Your task to perform on an android device: Open the map Image 0: 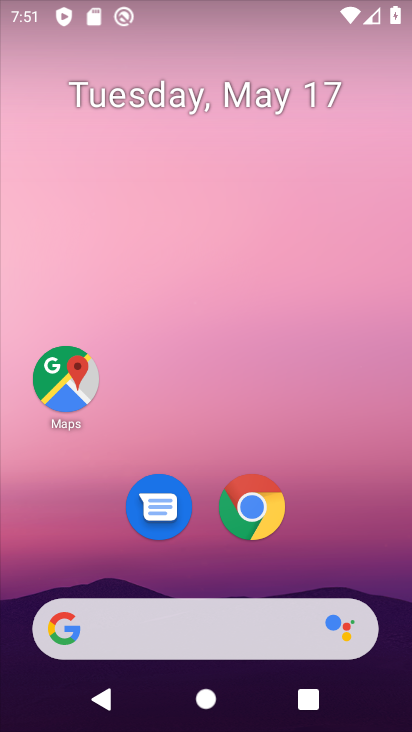
Step 0: click (72, 386)
Your task to perform on an android device: Open the map Image 1: 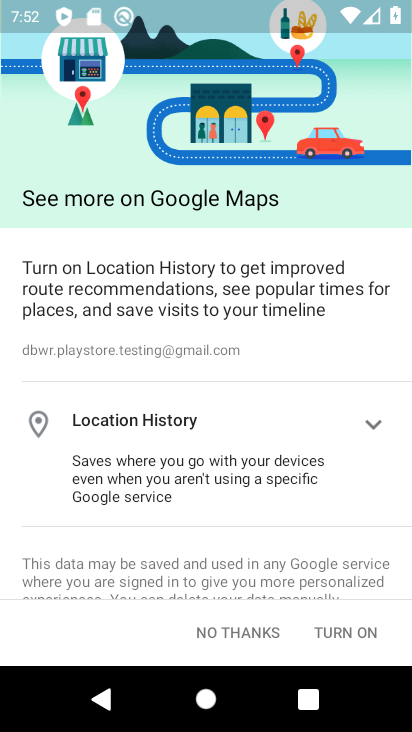
Step 1: task complete